Your task to perform on an android device: Go to Google maps Image 0: 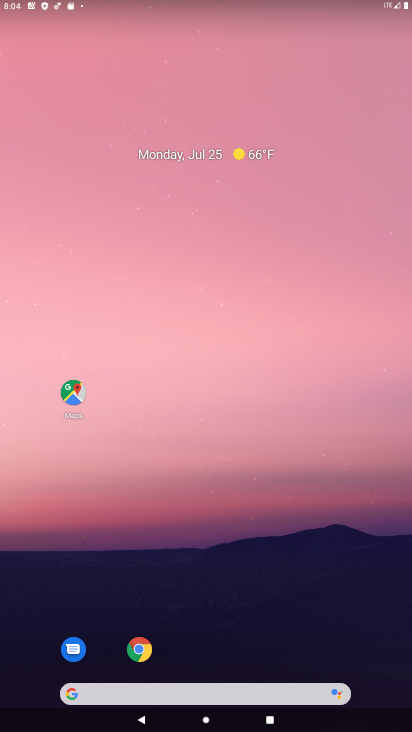
Step 0: drag from (271, 637) to (274, 192)
Your task to perform on an android device: Go to Google maps Image 1: 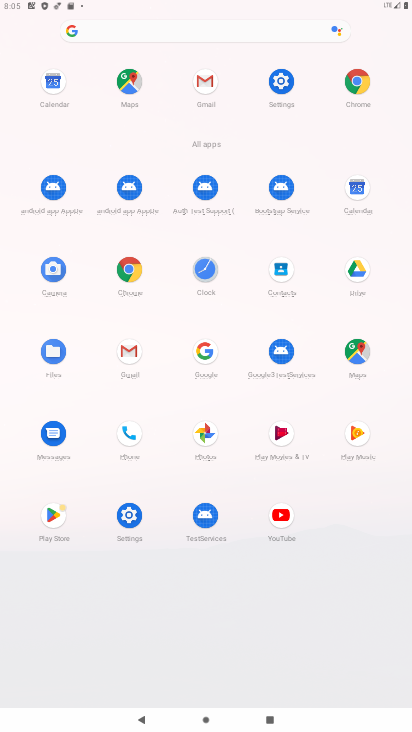
Step 1: click (359, 358)
Your task to perform on an android device: Go to Google maps Image 2: 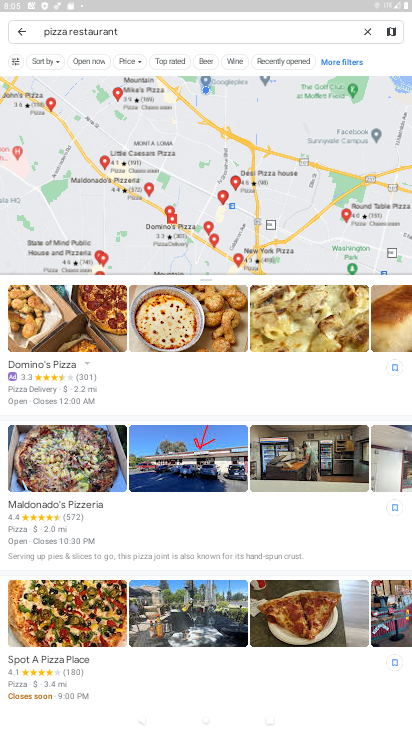
Step 2: task complete